Your task to perform on an android device: Clear the shopping cart on costco. Image 0: 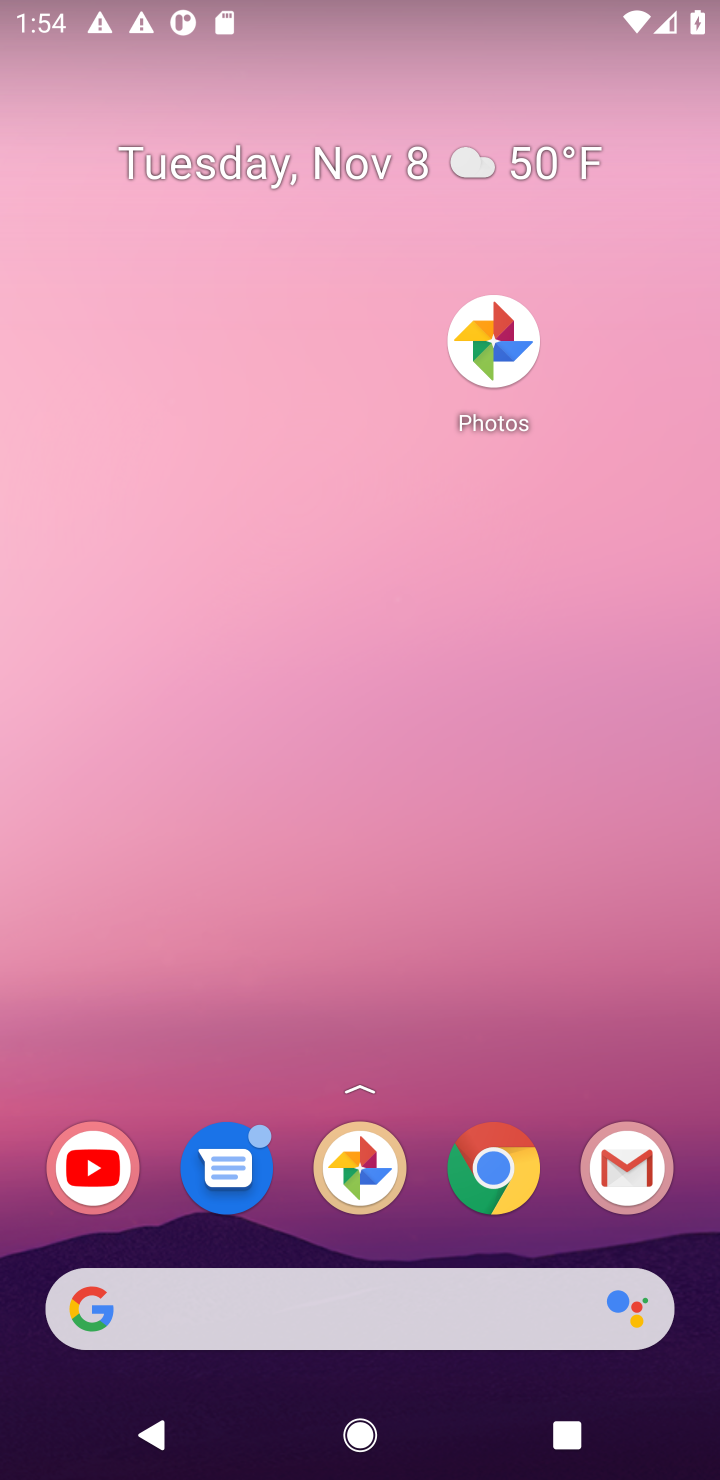
Step 0: drag from (467, 1182) to (277, 167)
Your task to perform on an android device: Clear the shopping cart on costco. Image 1: 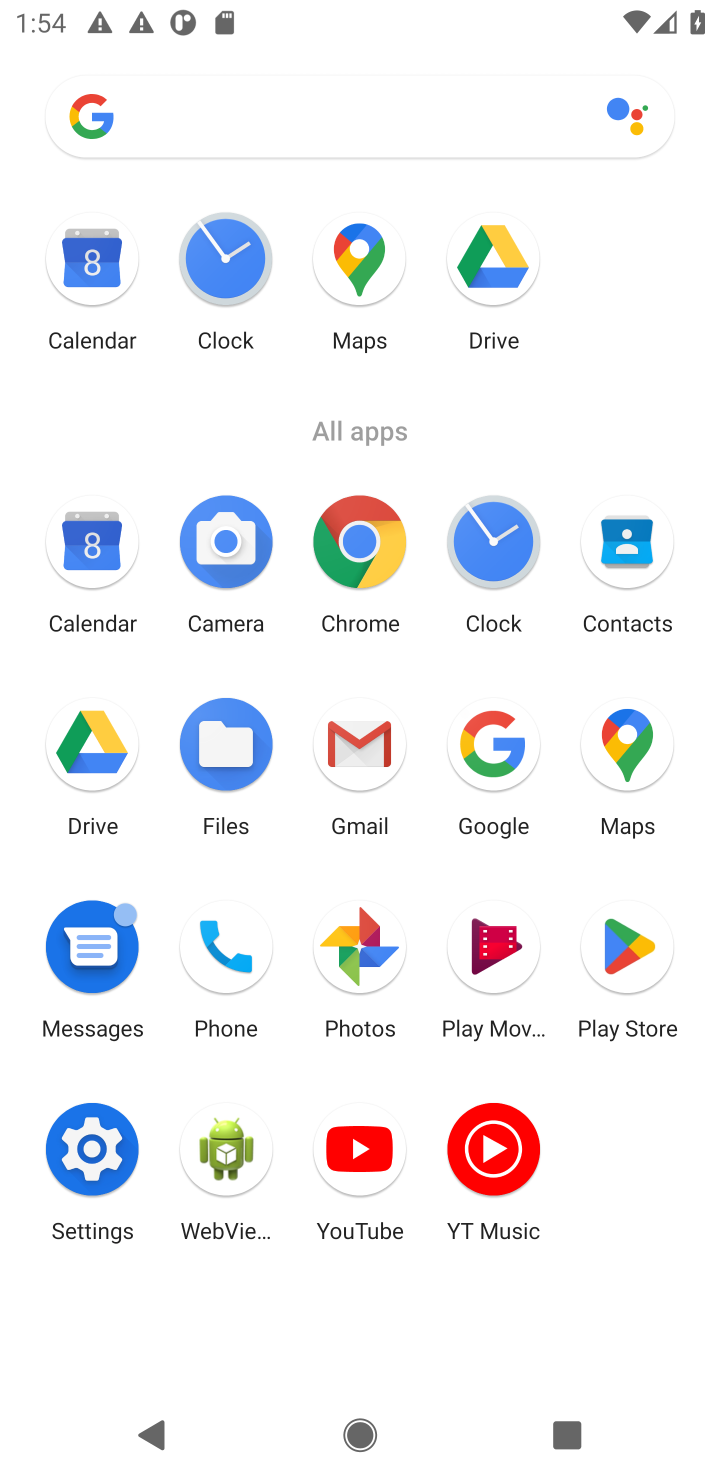
Step 1: click (370, 572)
Your task to perform on an android device: Clear the shopping cart on costco. Image 2: 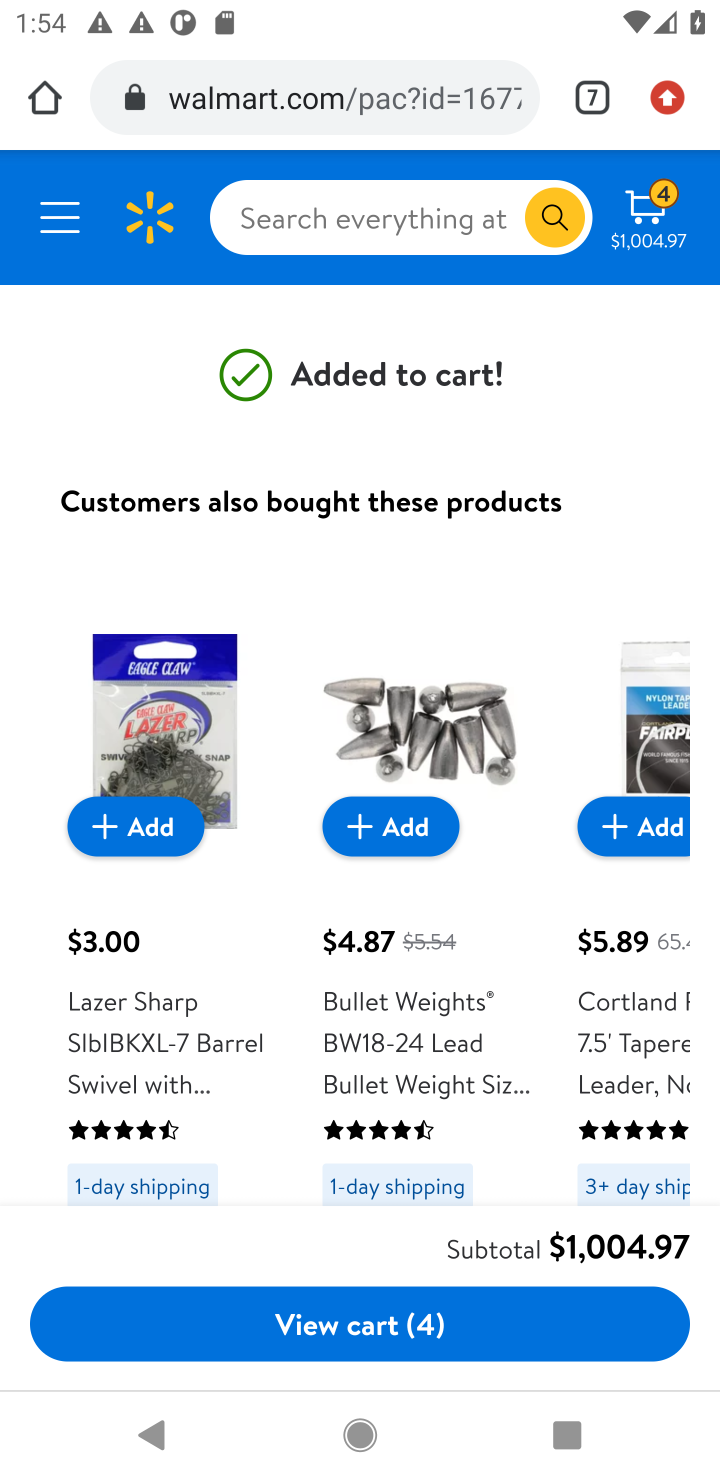
Step 2: click (402, 109)
Your task to perform on an android device: Clear the shopping cart on costco. Image 3: 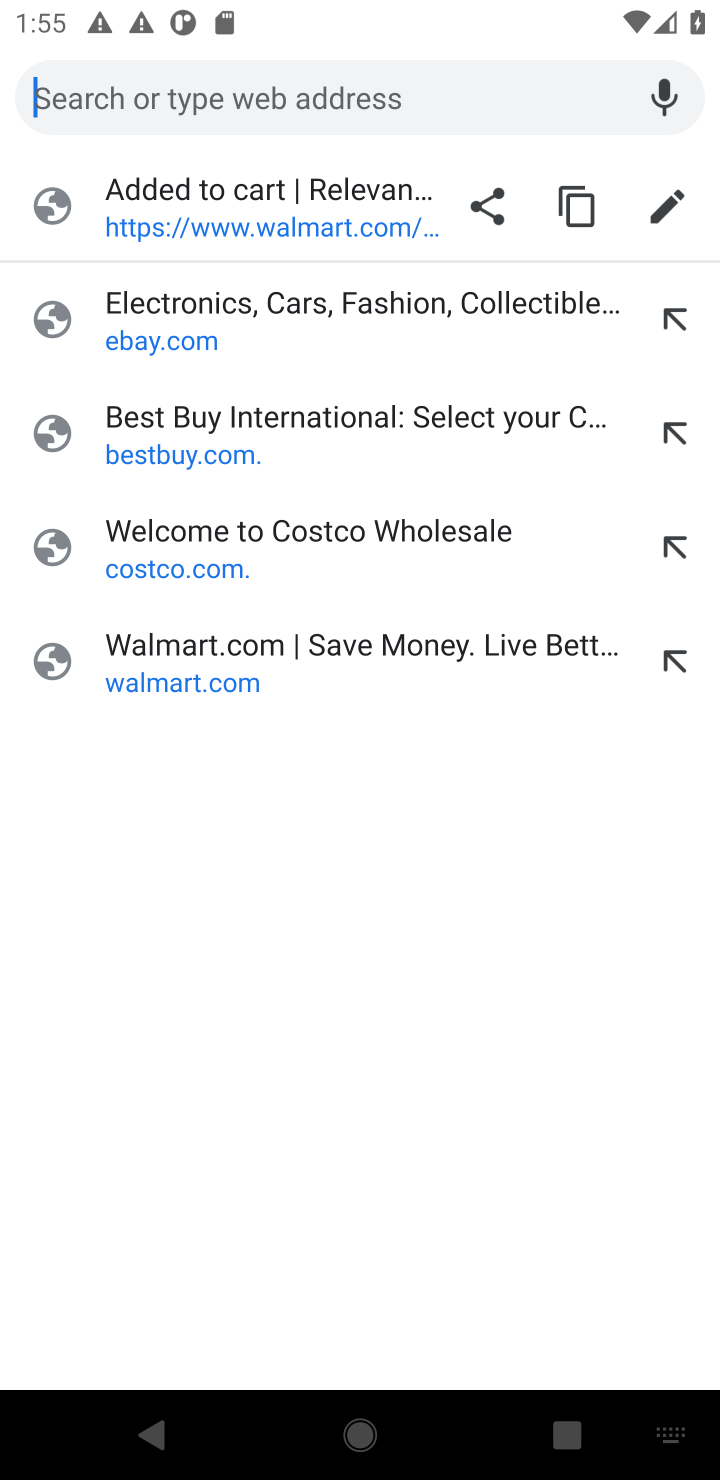
Step 3: type "costco"
Your task to perform on an android device: Clear the shopping cart on costco. Image 4: 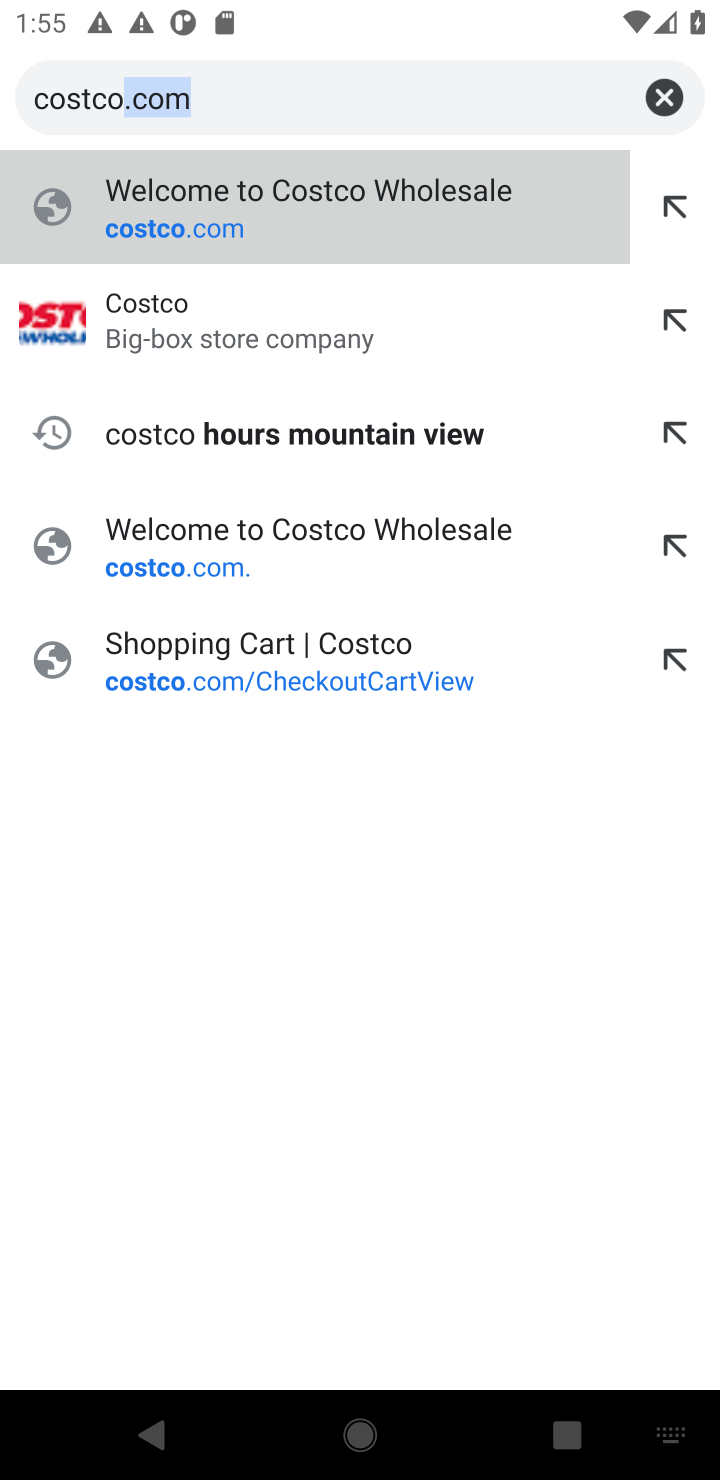
Step 4: press enter
Your task to perform on an android device: Clear the shopping cart on costco. Image 5: 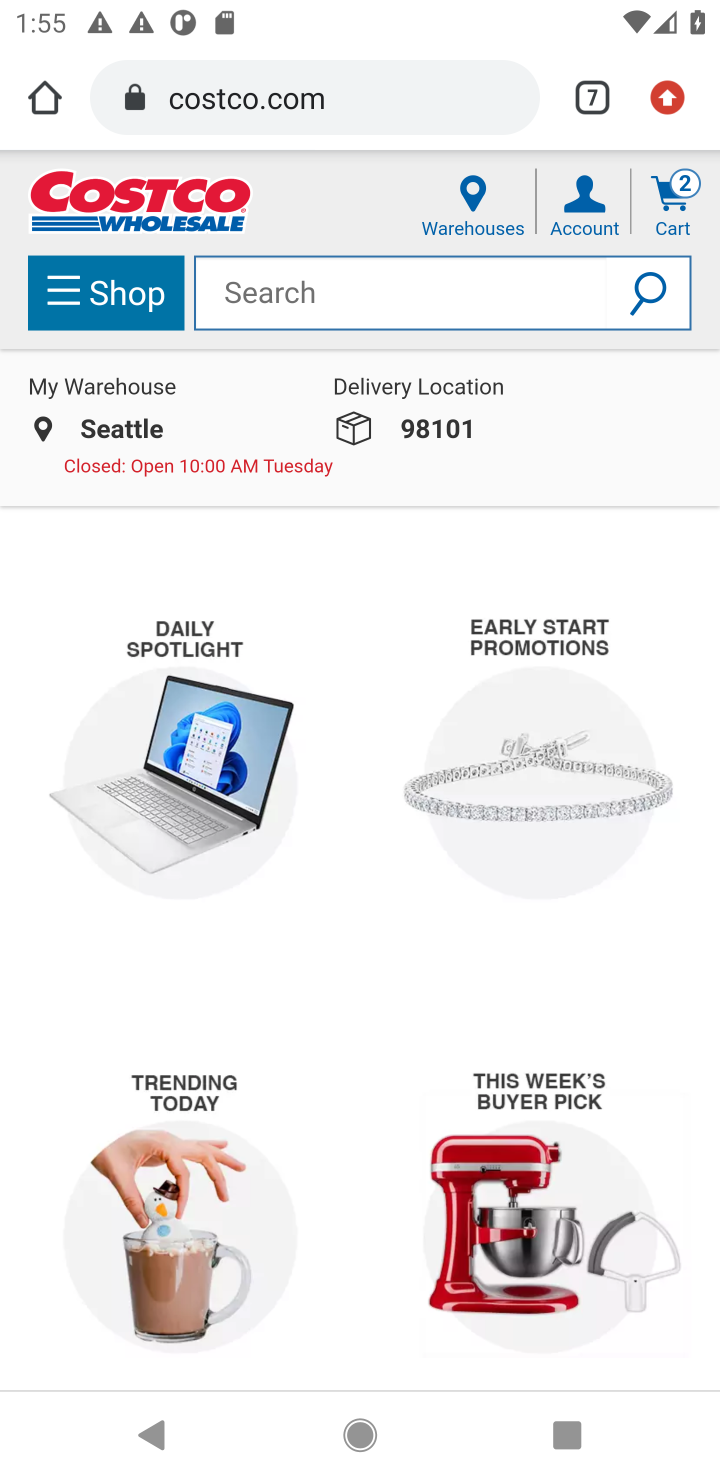
Step 5: click (674, 175)
Your task to perform on an android device: Clear the shopping cart on costco. Image 6: 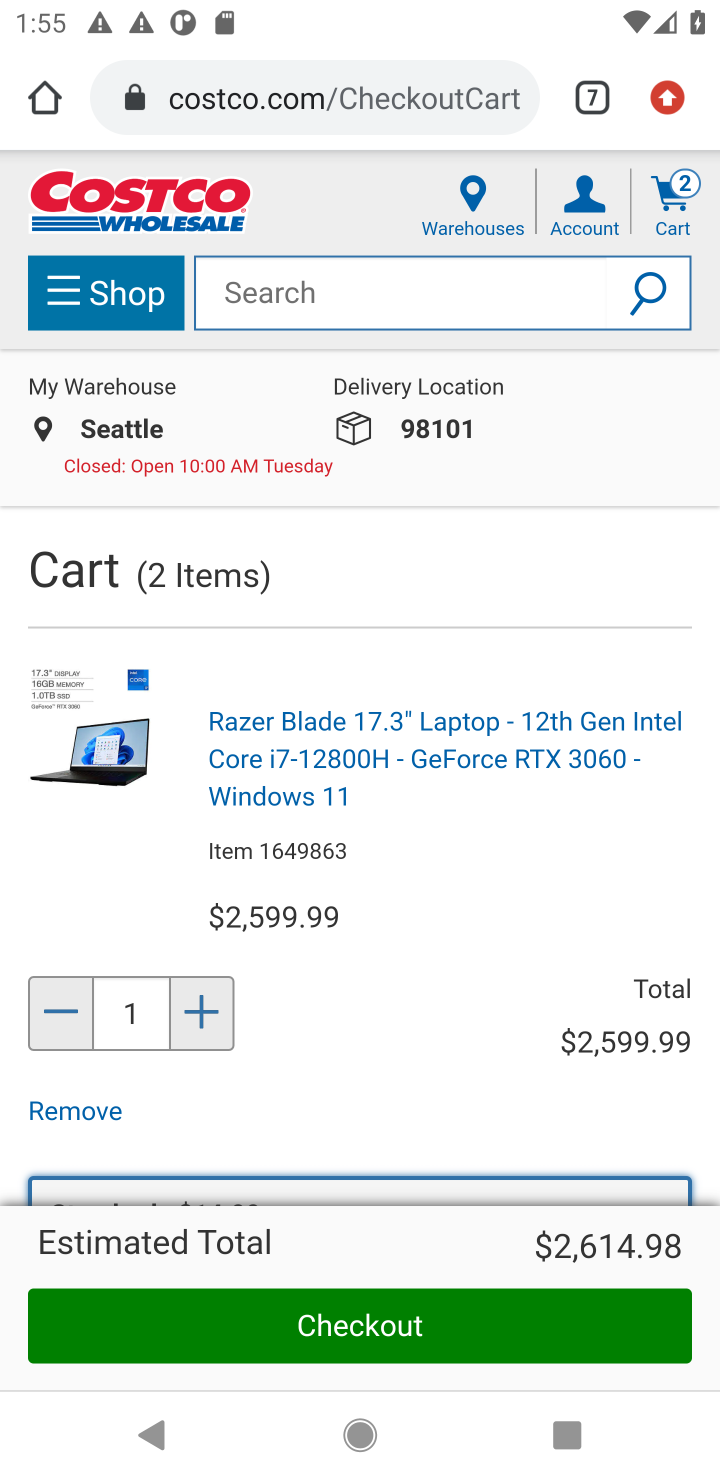
Step 6: drag from (634, 1058) to (279, 621)
Your task to perform on an android device: Clear the shopping cart on costco. Image 7: 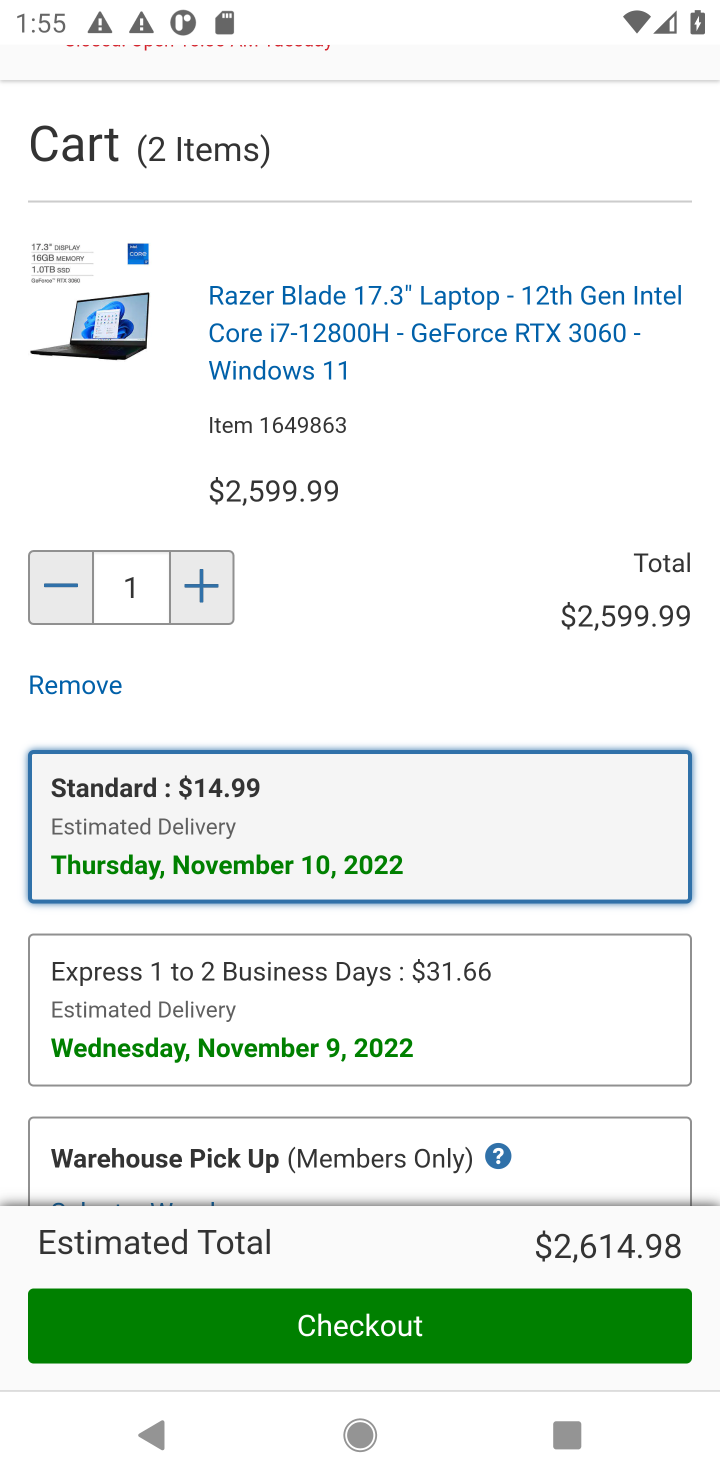
Step 7: click (114, 689)
Your task to perform on an android device: Clear the shopping cart on costco. Image 8: 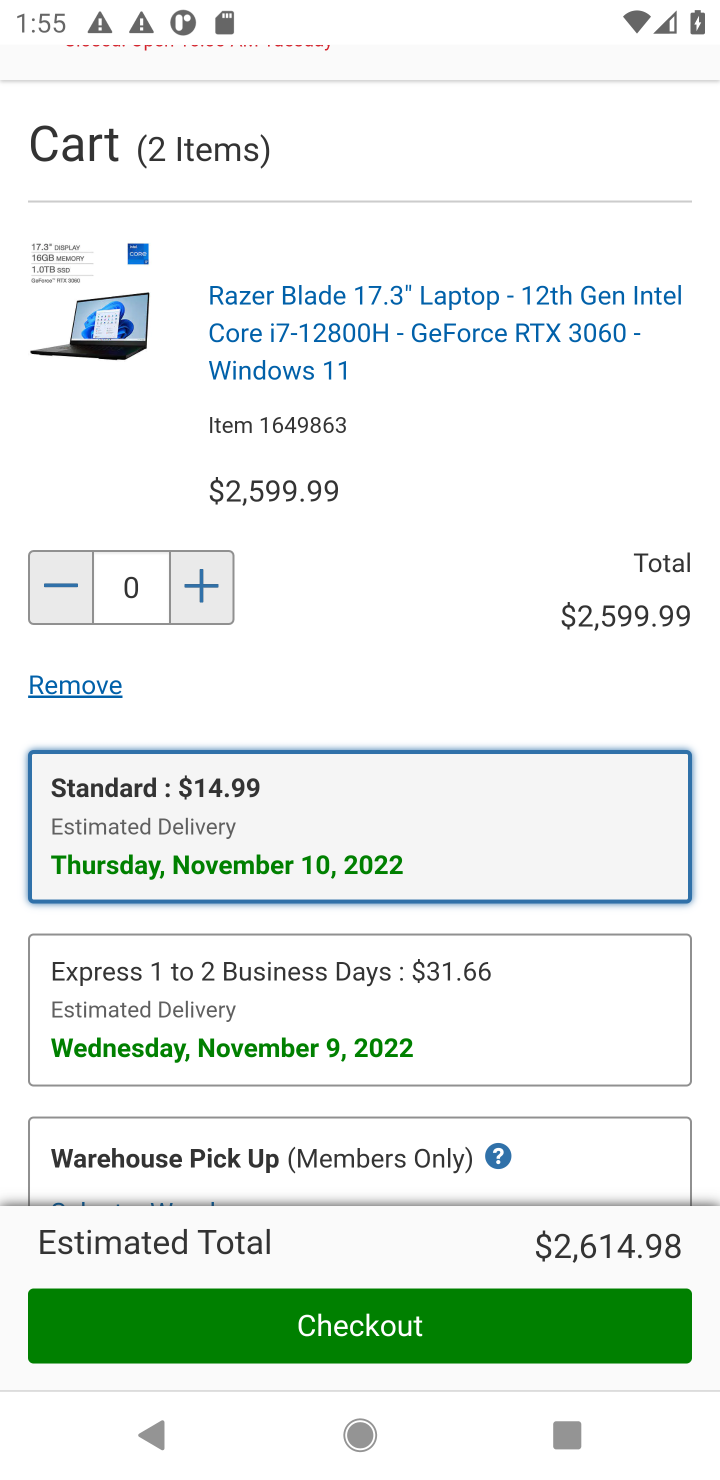
Step 8: click (91, 681)
Your task to perform on an android device: Clear the shopping cart on costco. Image 9: 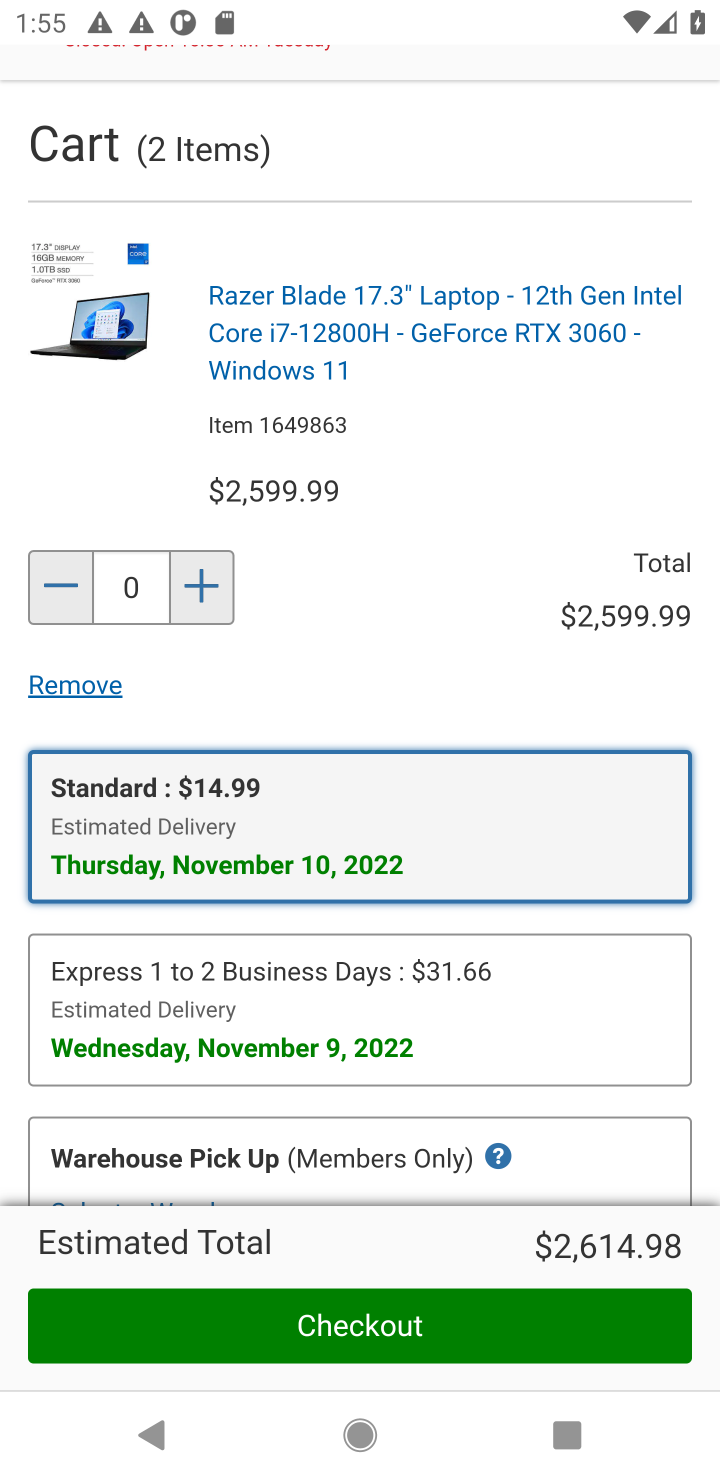
Step 9: click (96, 694)
Your task to perform on an android device: Clear the shopping cart on costco. Image 10: 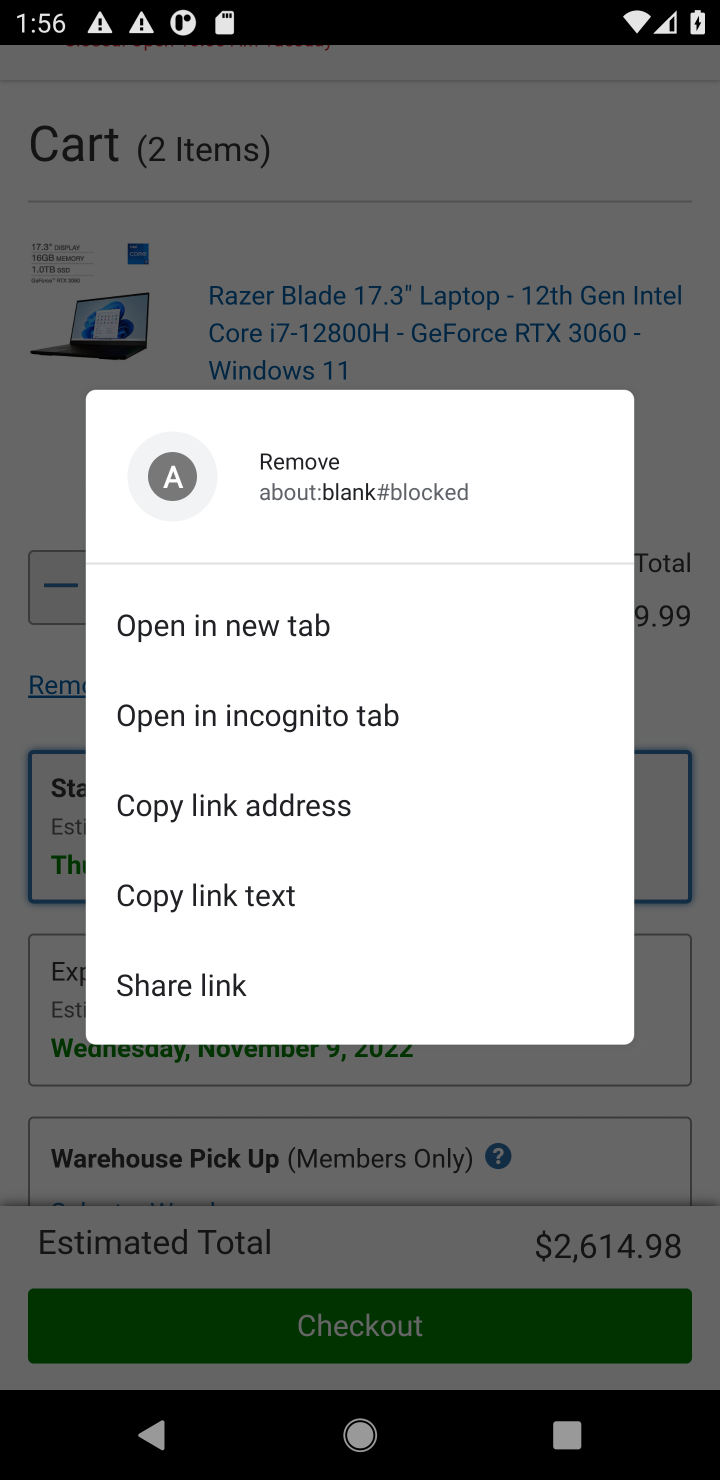
Step 10: click (596, 1144)
Your task to perform on an android device: Clear the shopping cart on costco. Image 11: 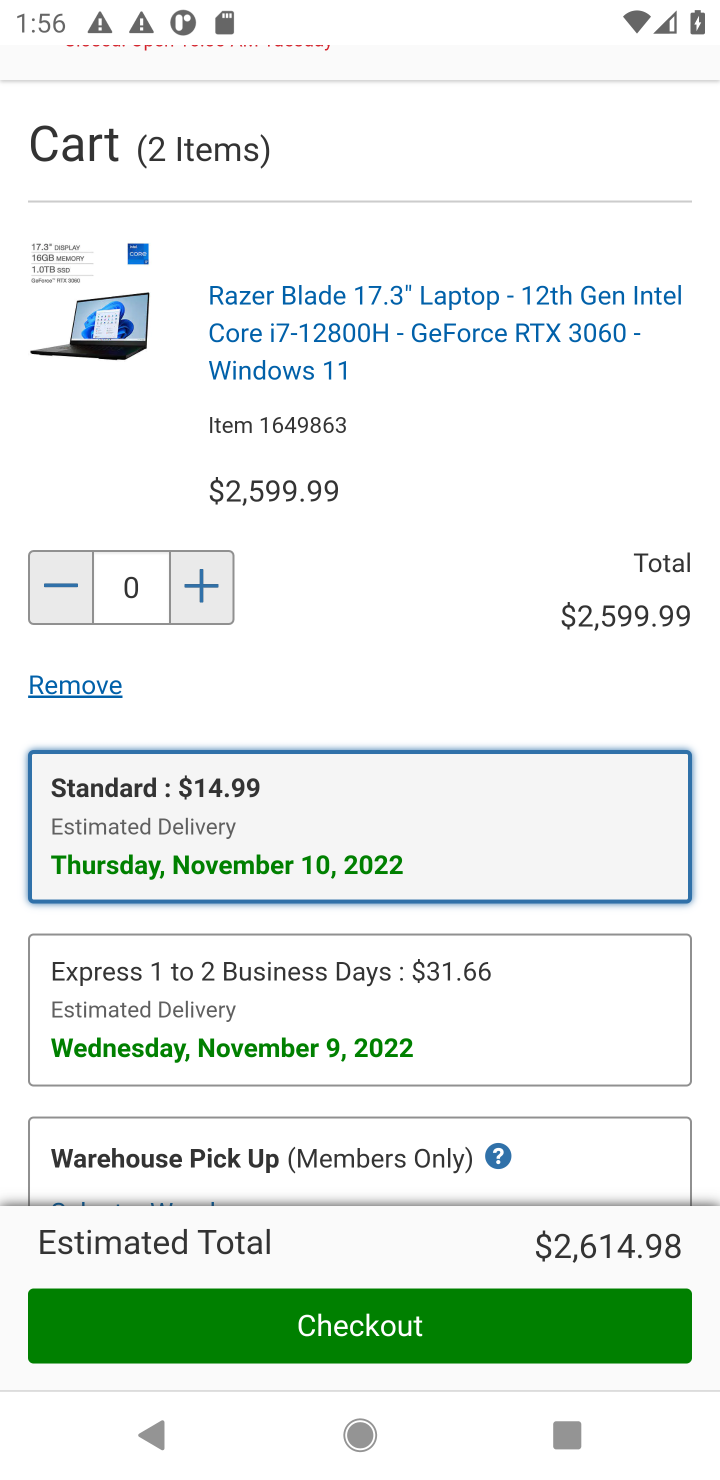
Step 11: click (83, 688)
Your task to perform on an android device: Clear the shopping cart on costco. Image 12: 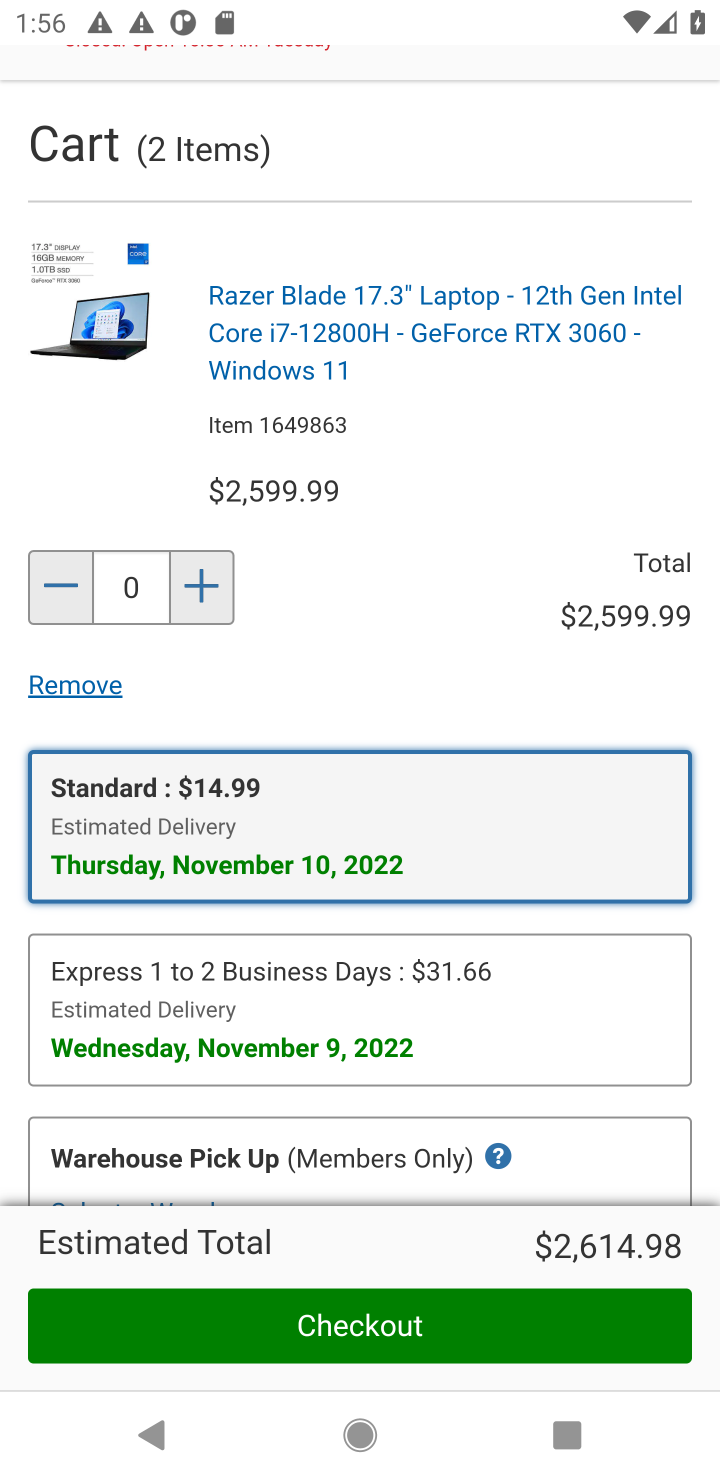
Step 12: click (64, 685)
Your task to perform on an android device: Clear the shopping cart on costco. Image 13: 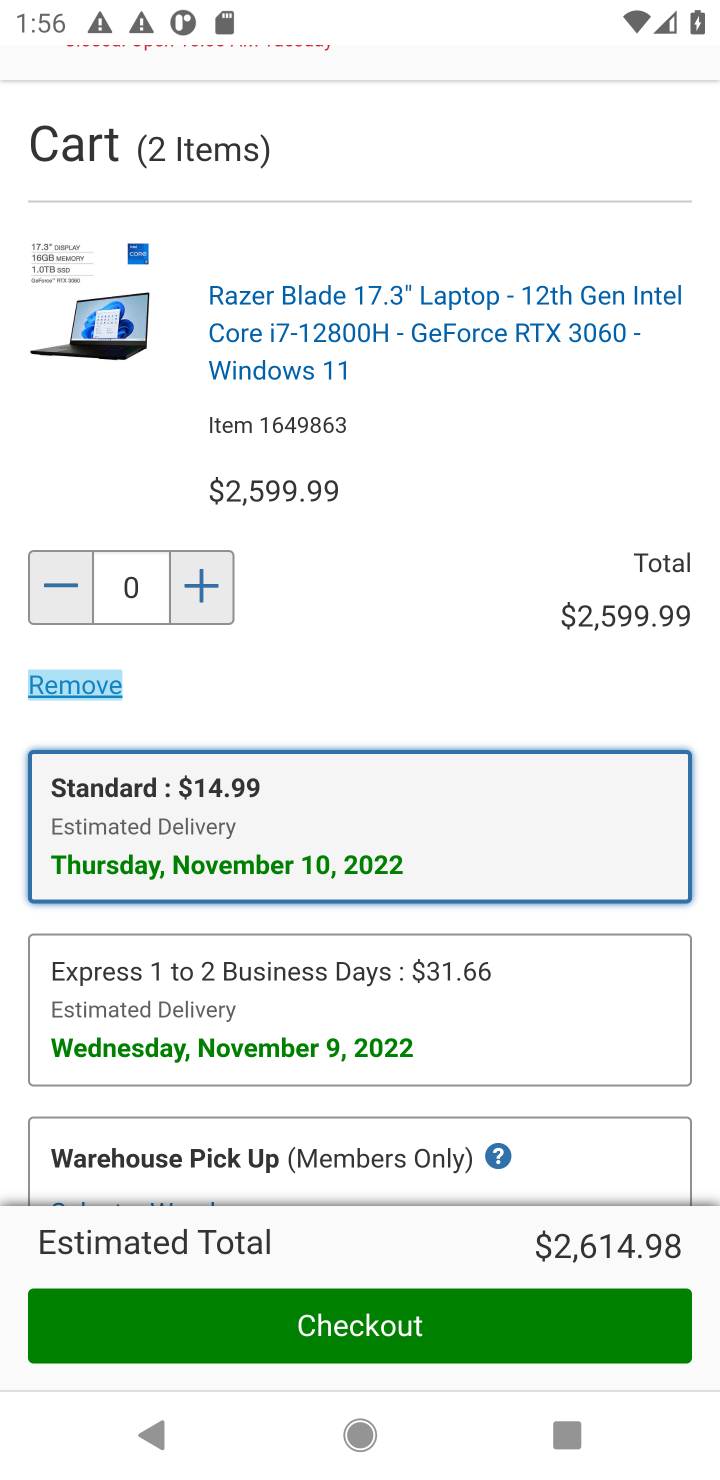
Step 13: click (66, 685)
Your task to perform on an android device: Clear the shopping cart on costco. Image 14: 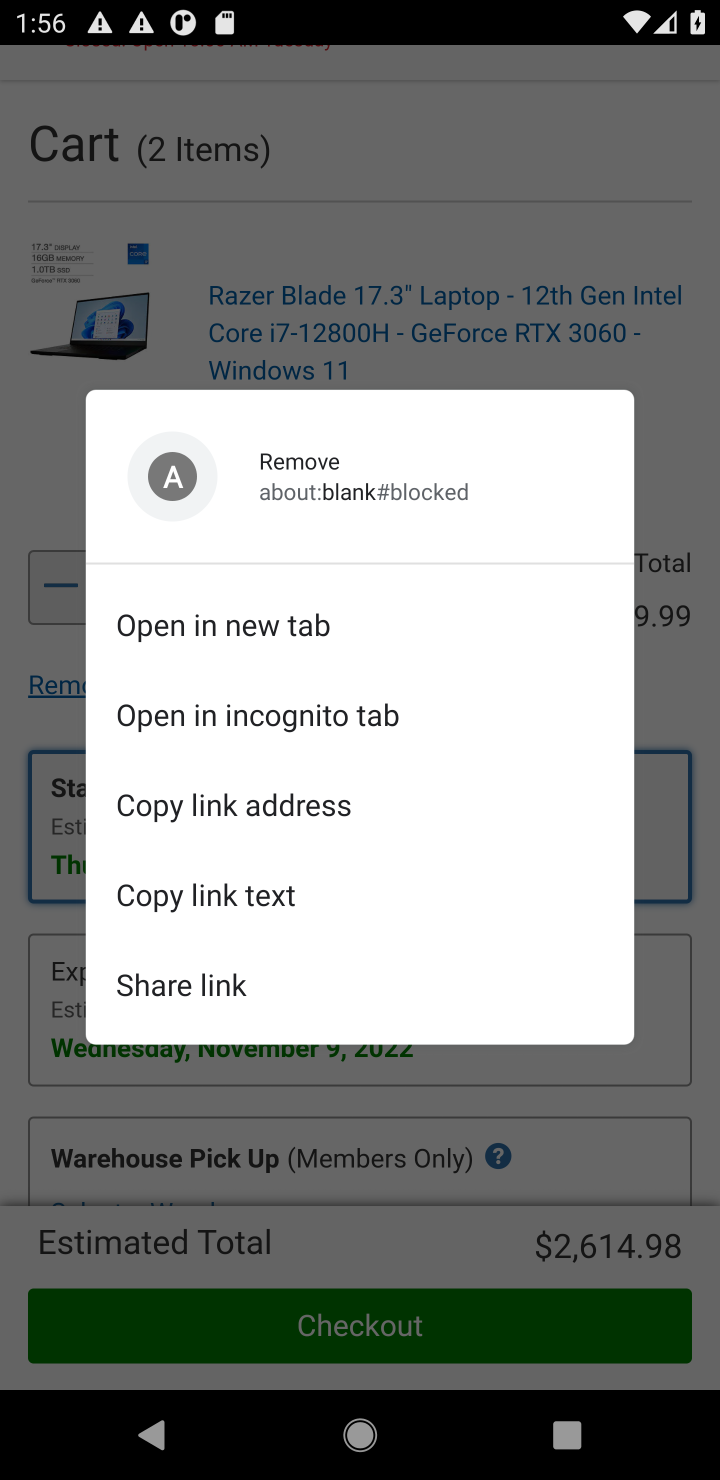
Step 14: click (143, 609)
Your task to perform on an android device: Clear the shopping cart on costco. Image 15: 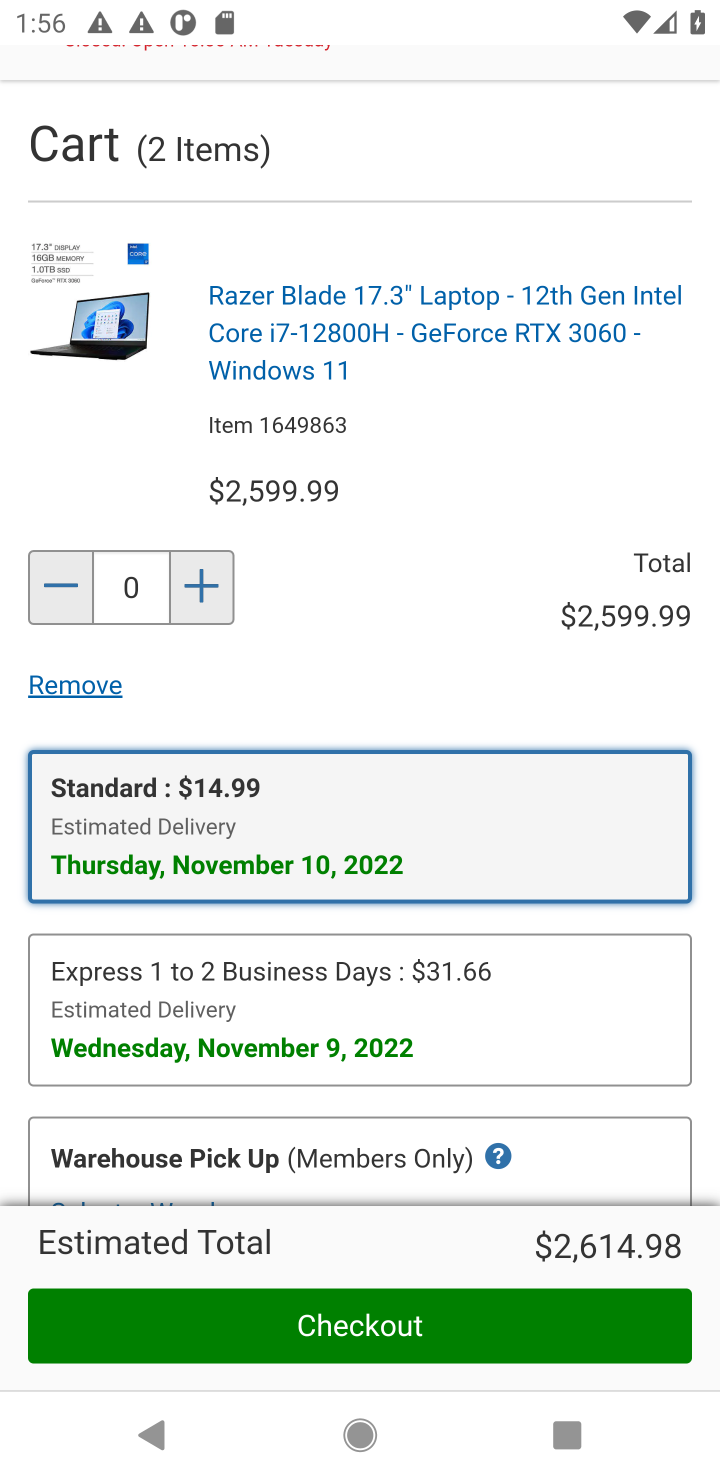
Step 15: click (40, 677)
Your task to perform on an android device: Clear the shopping cart on costco. Image 16: 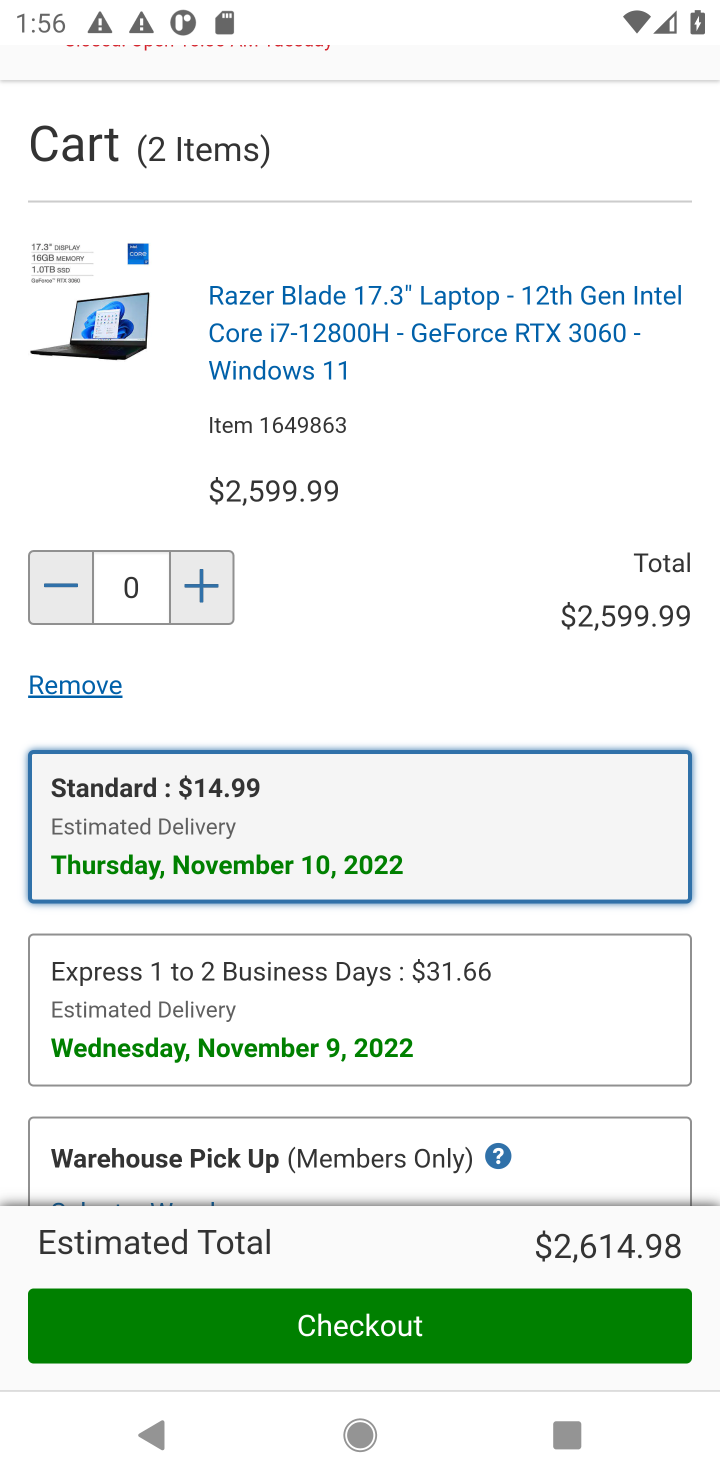
Step 16: click (47, 587)
Your task to perform on an android device: Clear the shopping cart on costco. Image 17: 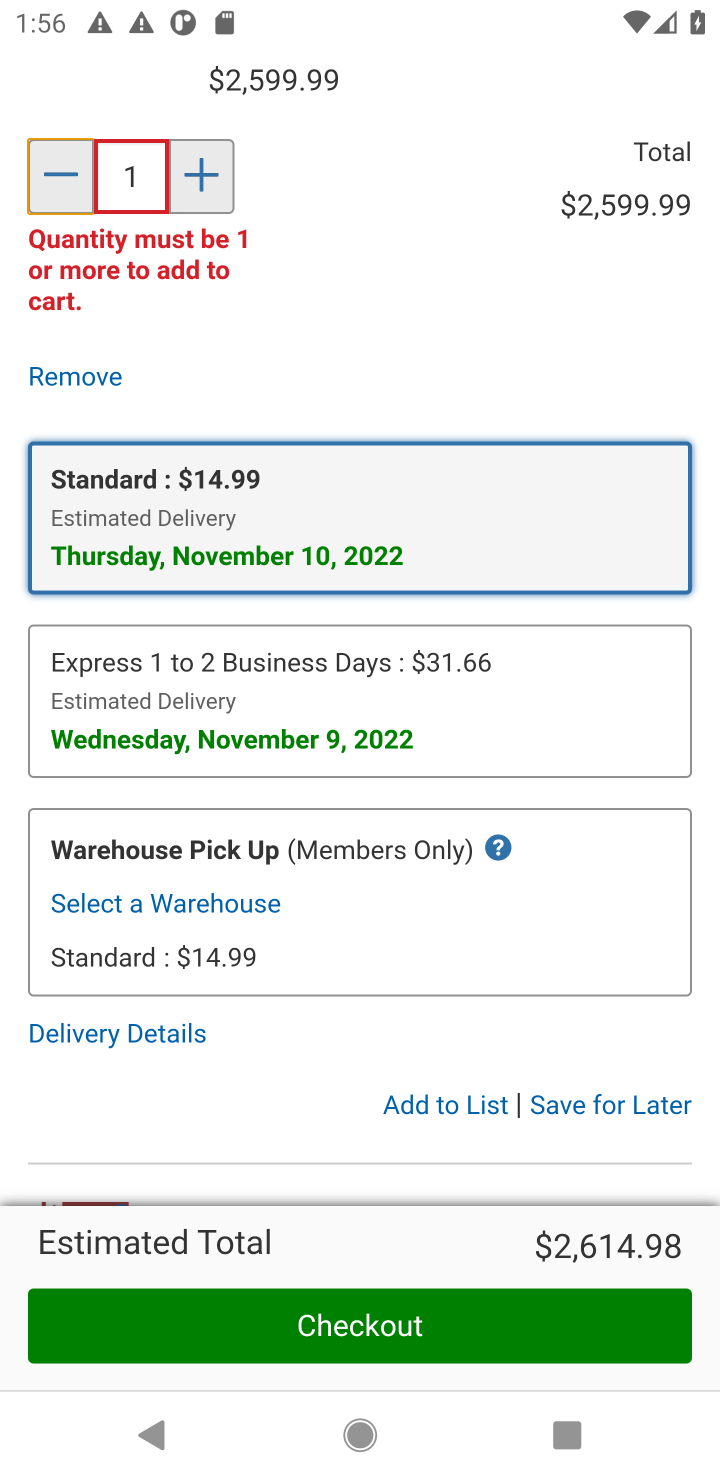
Step 17: click (59, 171)
Your task to perform on an android device: Clear the shopping cart on costco. Image 18: 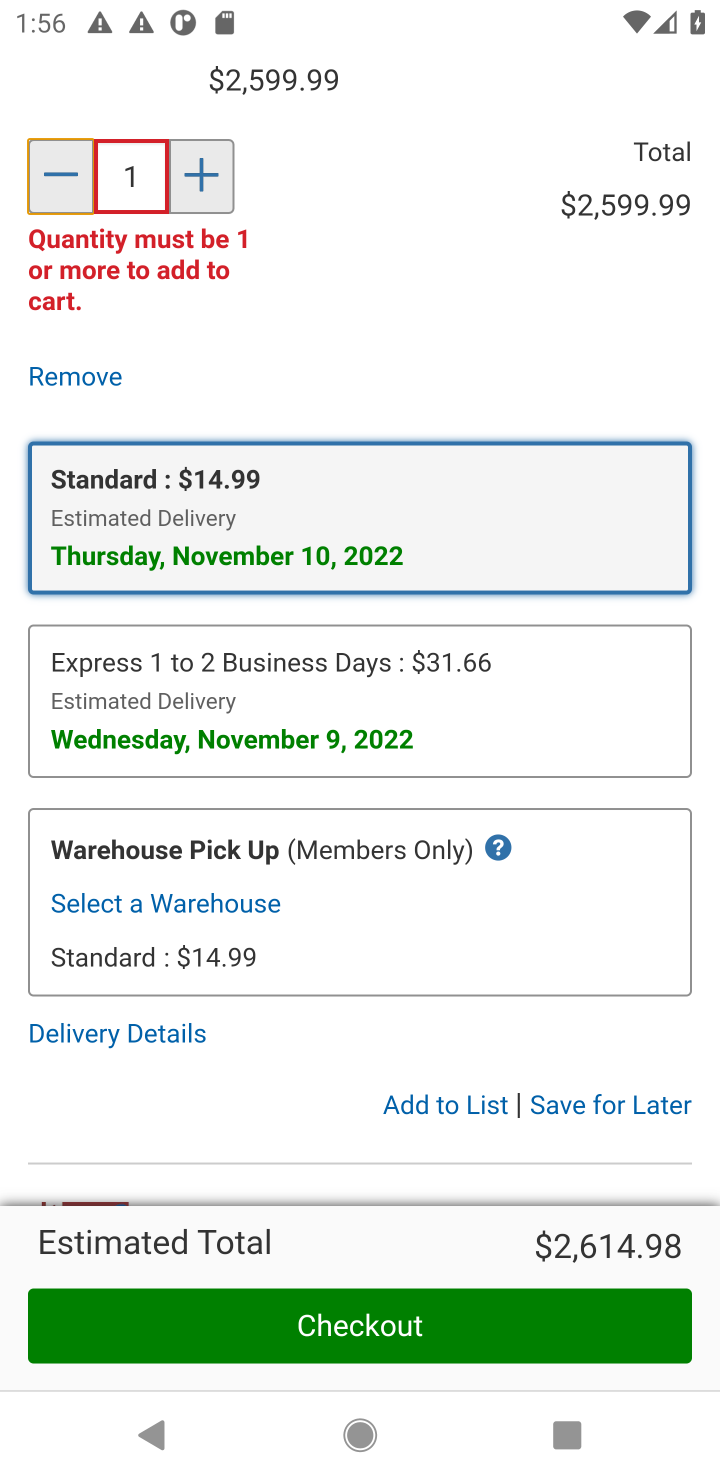
Step 18: click (58, 381)
Your task to perform on an android device: Clear the shopping cart on costco. Image 19: 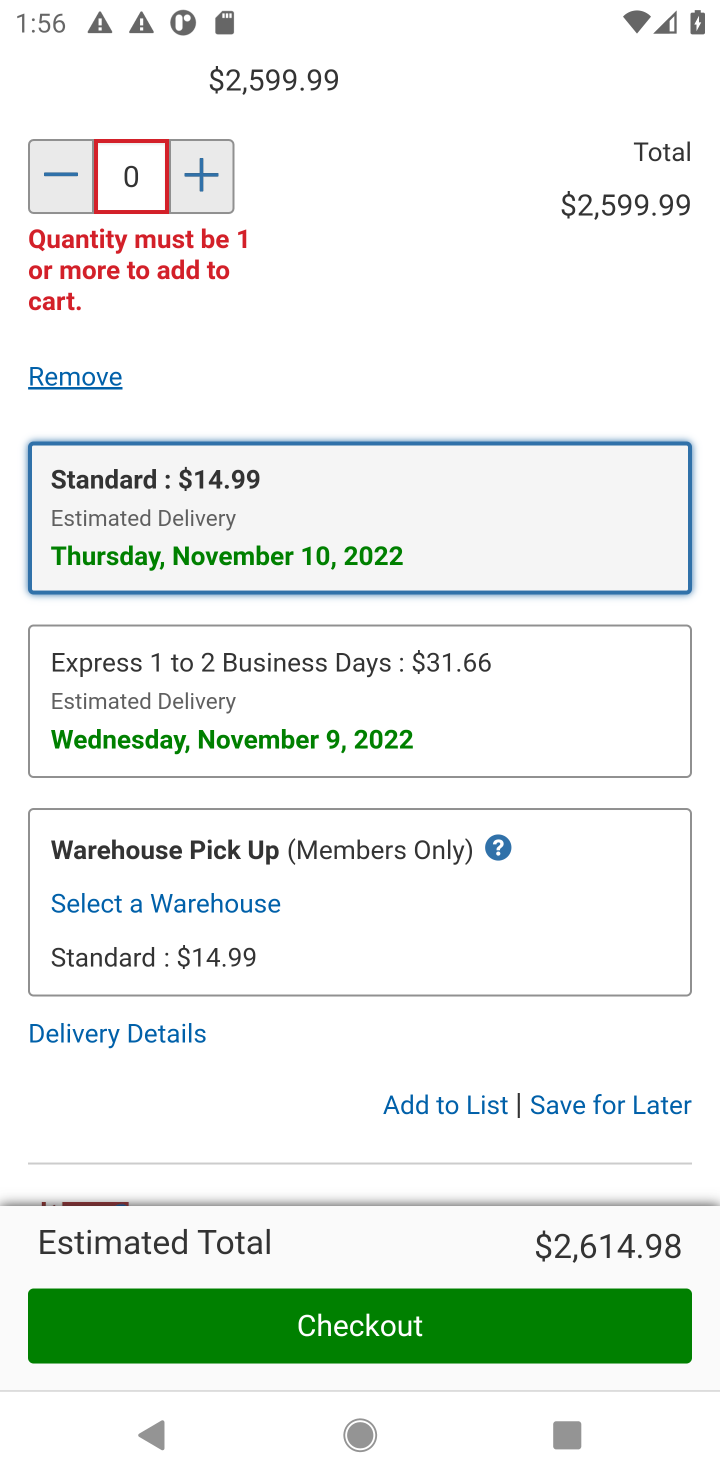
Step 19: click (58, 379)
Your task to perform on an android device: Clear the shopping cart on costco. Image 20: 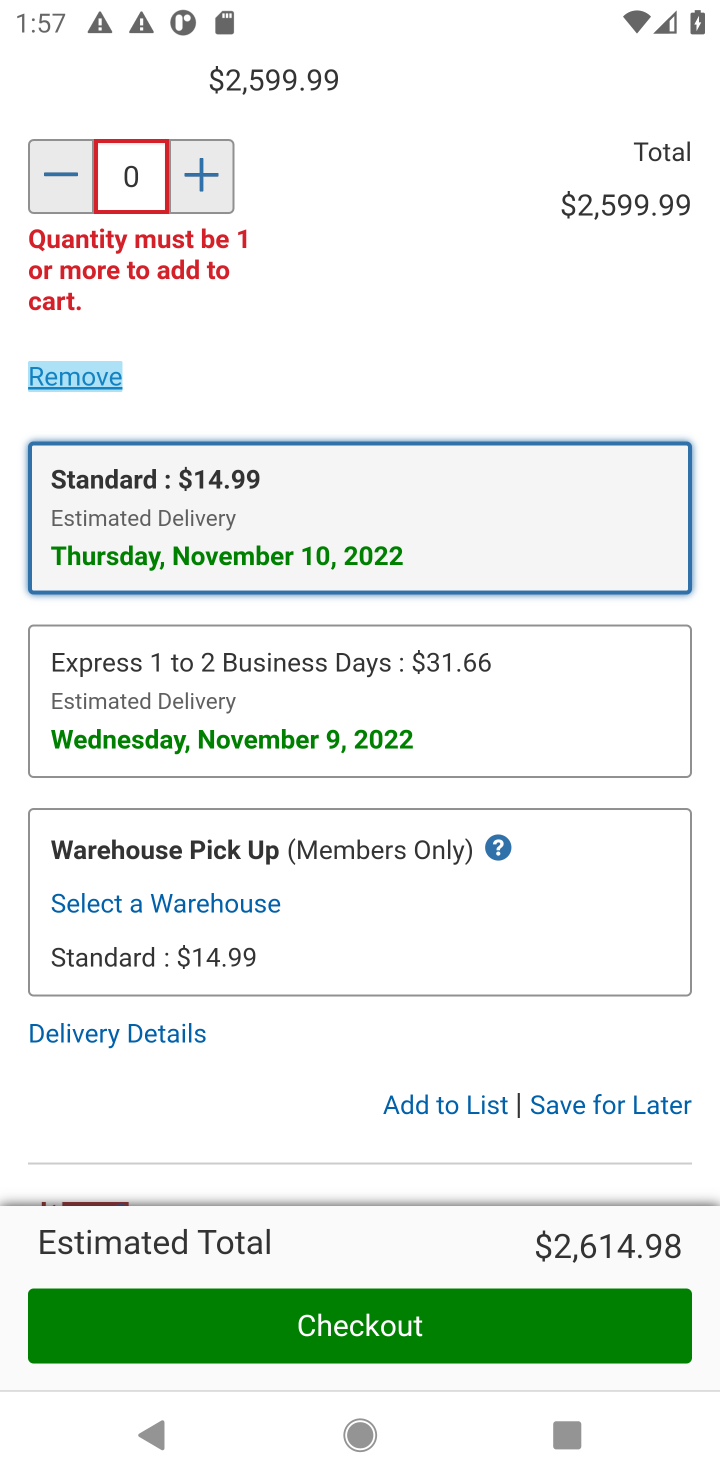
Step 20: click (58, 379)
Your task to perform on an android device: Clear the shopping cart on costco. Image 21: 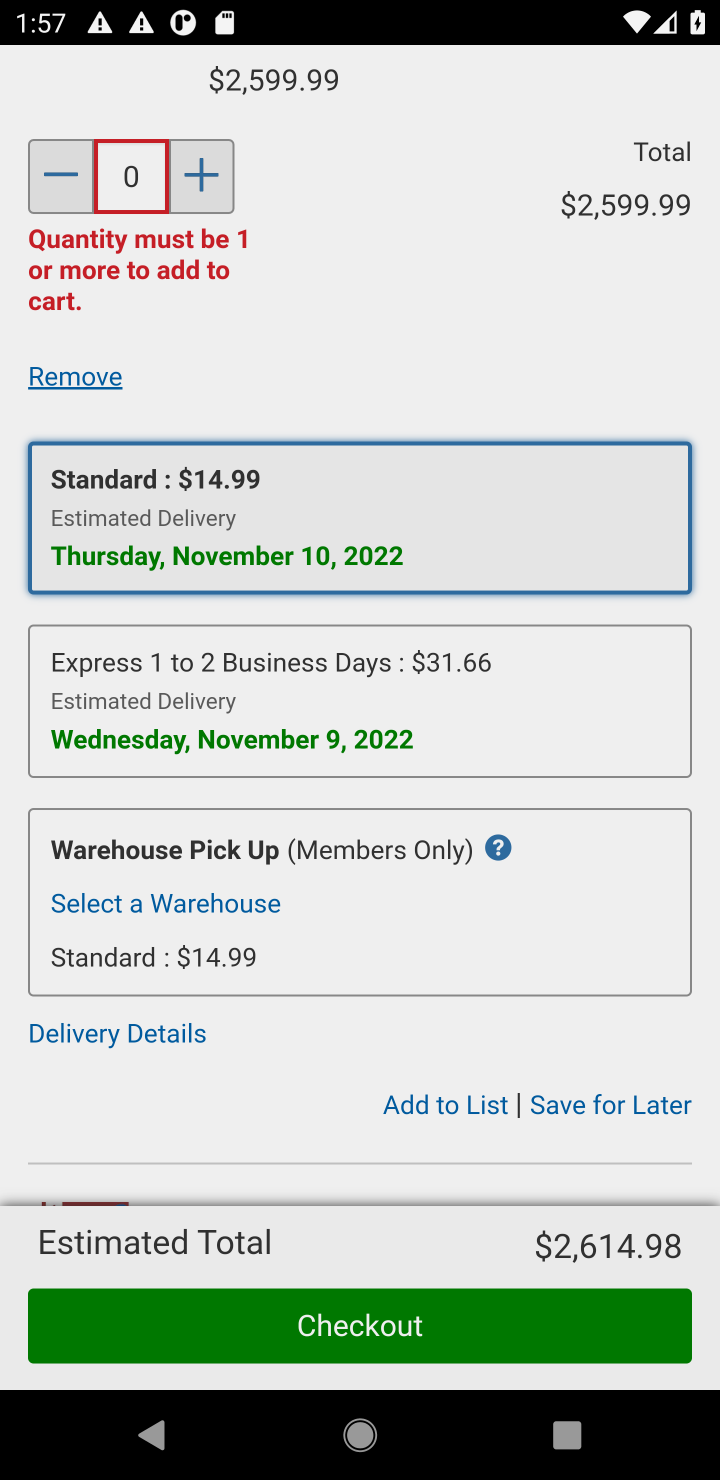
Step 21: click (58, 379)
Your task to perform on an android device: Clear the shopping cart on costco. Image 22: 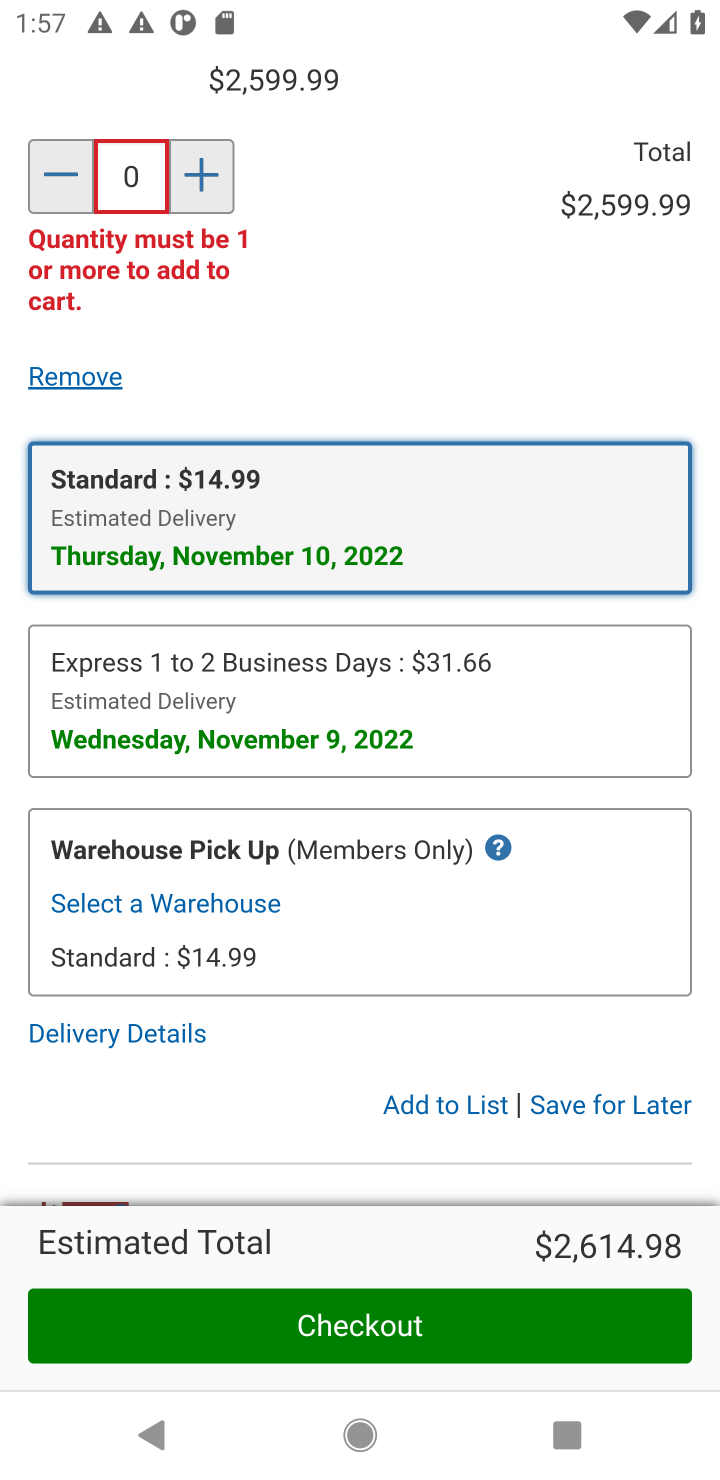
Step 22: click (58, 379)
Your task to perform on an android device: Clear the shopping cart on costco. Image 23: 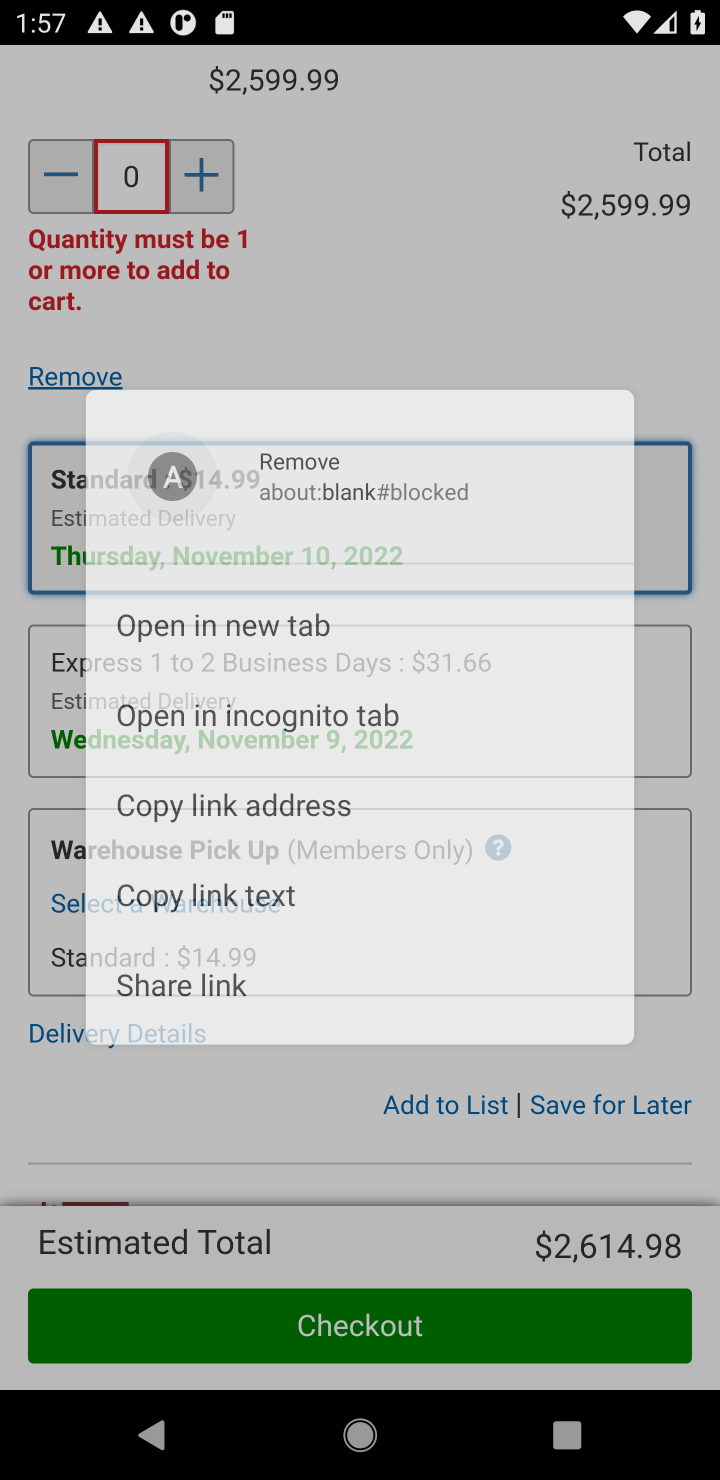
Step 23: click (58, 379)
Your task to perform on an android device: Clear the shopping cart on costco. Image 24: 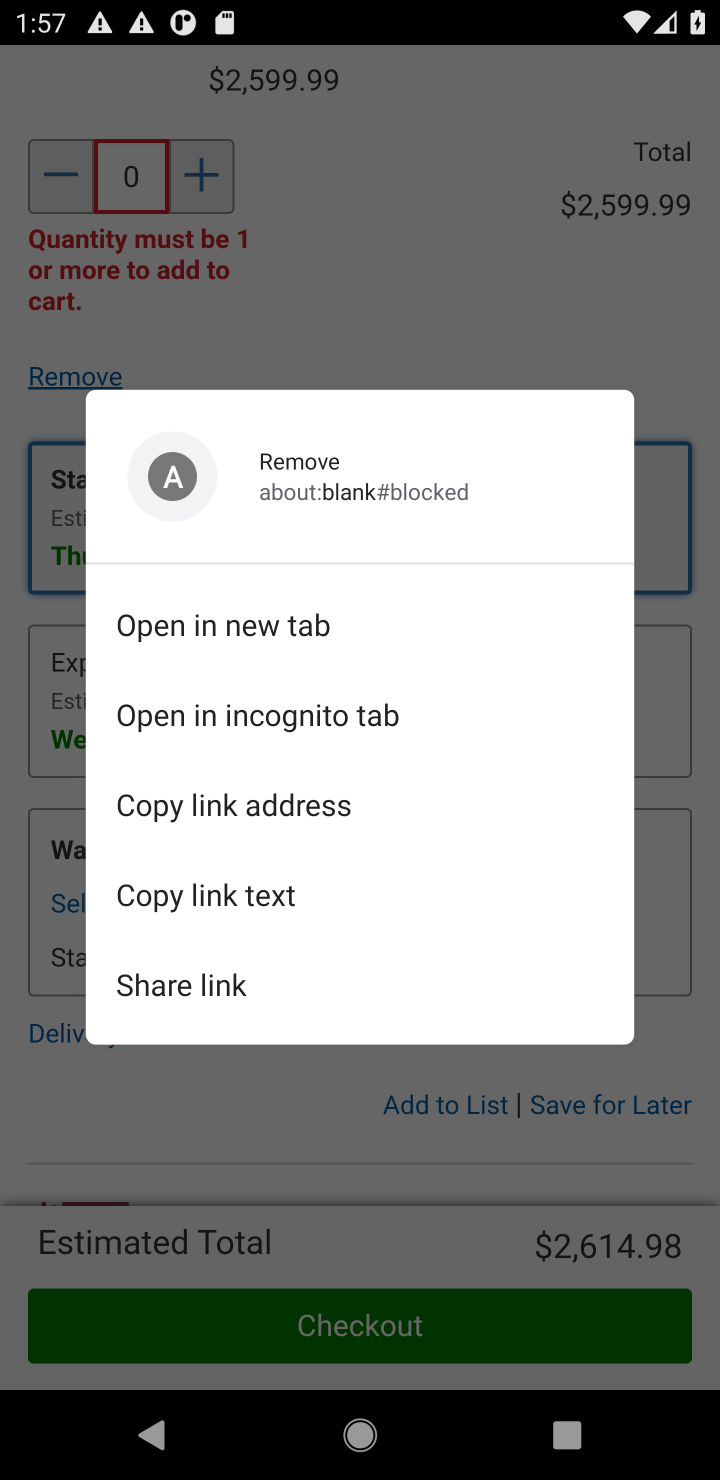
Step 24: click (58, 379)
Your task to perform on an android device: Clear the shopping cart on costco. Image 25: 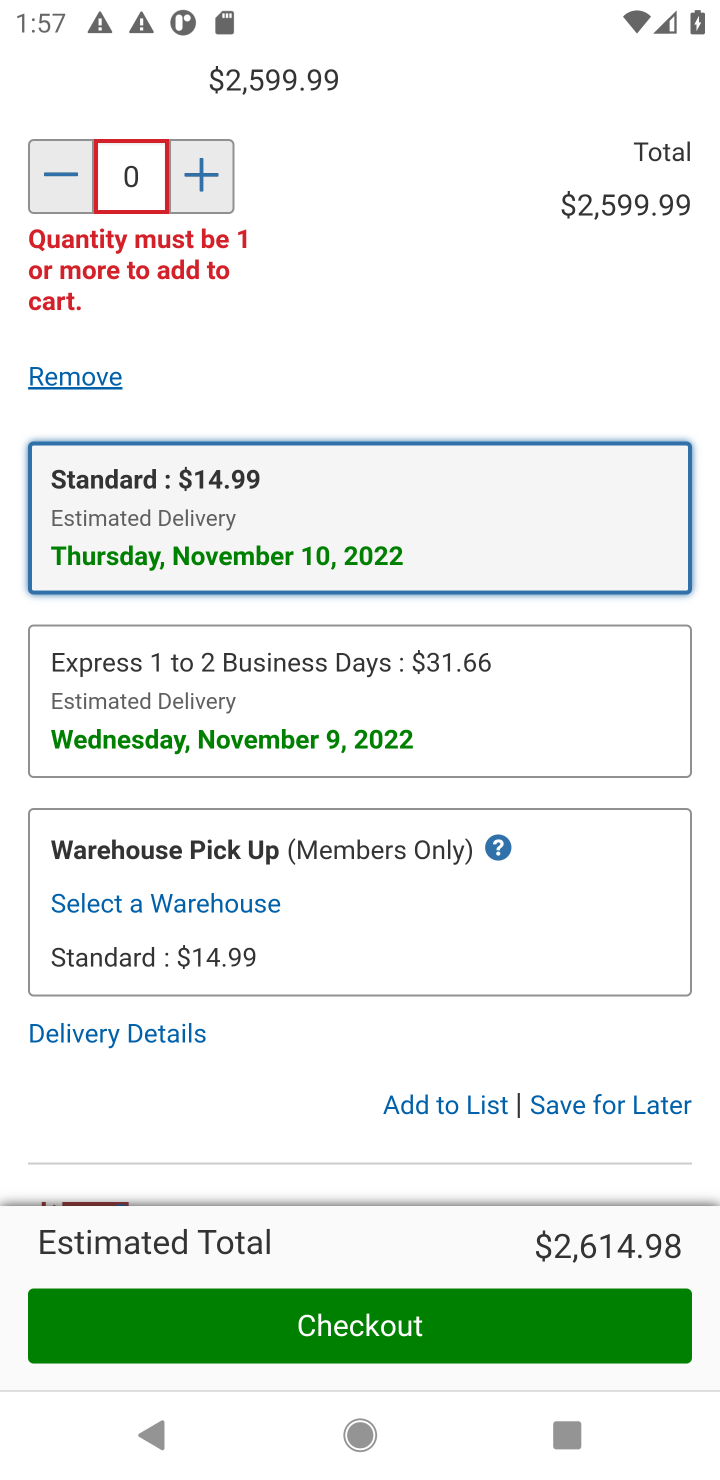
Step 25: task complete